Your task to perform on an android device: Show me popular games on the Play Store Image 0: 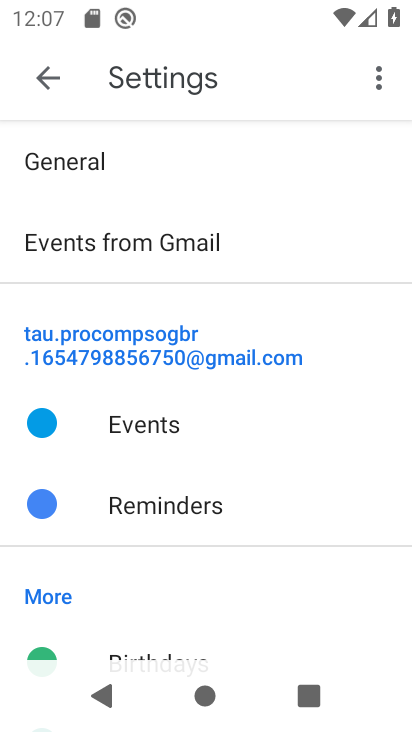
Step 0: press home button
Your task to perform on an android device: Show me popular games on the Play Store Image 1: 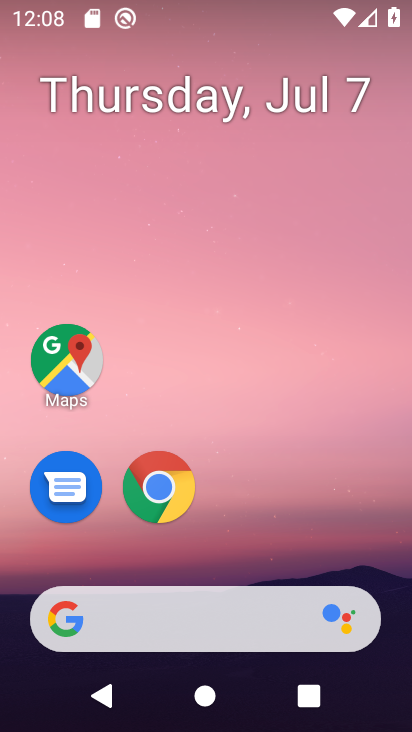
Step 1: drag from (341, 532) to (338, 180)
Your task to perform on an android device: Show me popular games on the Play Store Image 2: 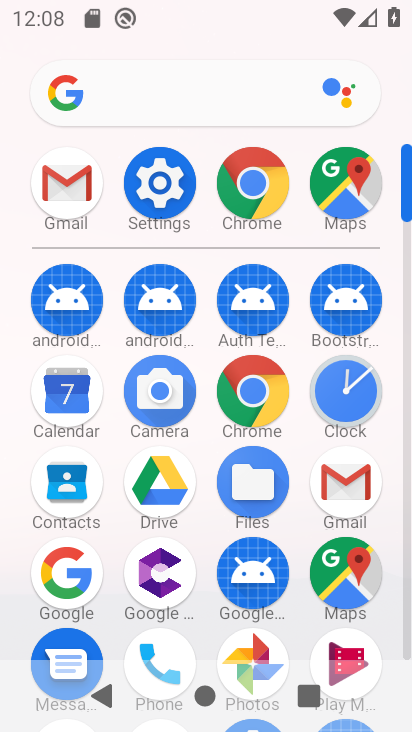
Step 2: drag from (392, 517) to (395, 317)
Your task to perform on an android device: Show me popular games on the Play Store Image 3: 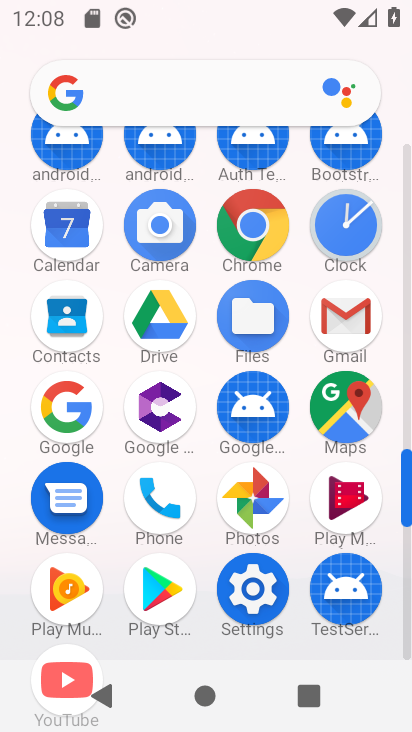
Step 3: click (169, 580)
Your task to perform on an android device: Show me popular games on the Play Store Image 4: 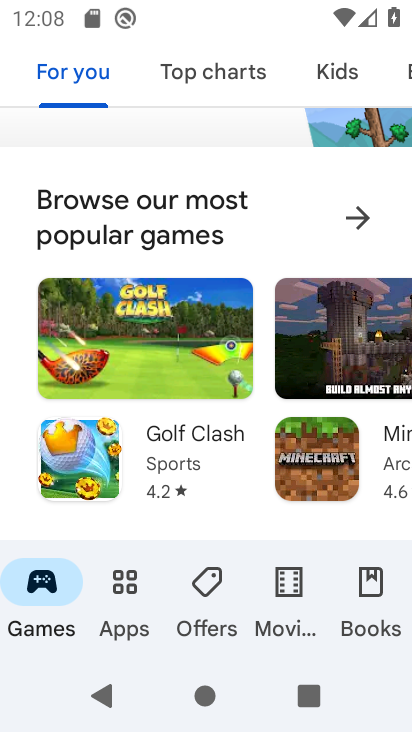
Step 4: task complete